Your task to perform on an android device: What's a good restaurant in Dallas? Image 0: 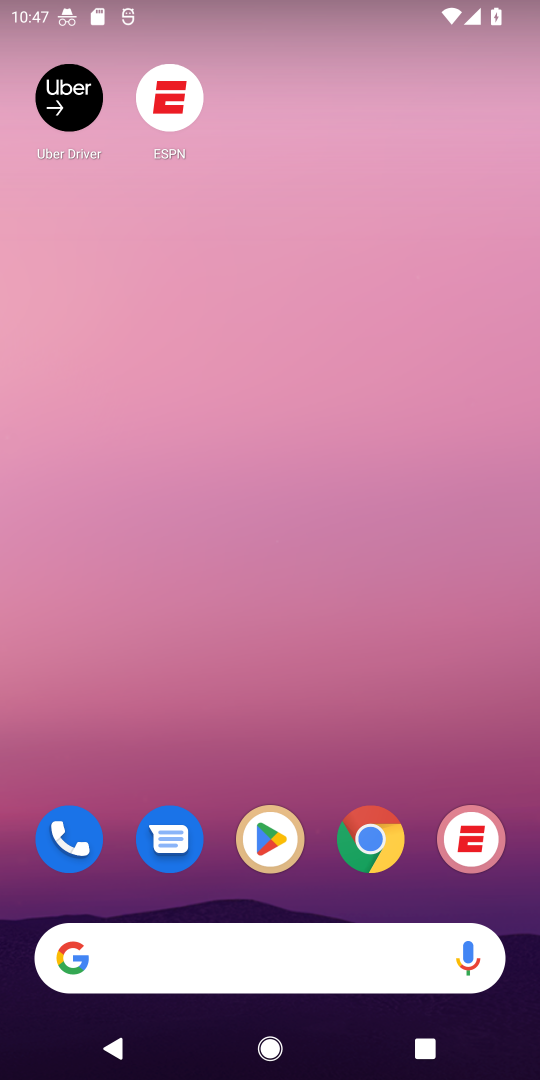
Step 0: drag from (306, 902) to (307, 81)
Your task to perform on an android device: What's a good restaurant in Dallas? Image 1: 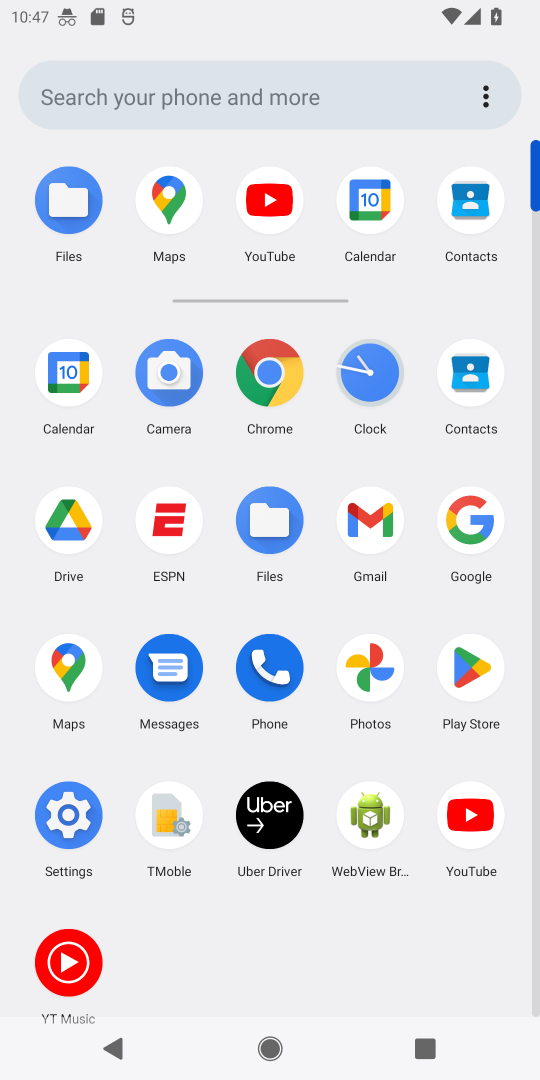
Step 1: click (263, 382)
Your task to perform on an android device: What's a good restaurant in Dallas? Image 2: 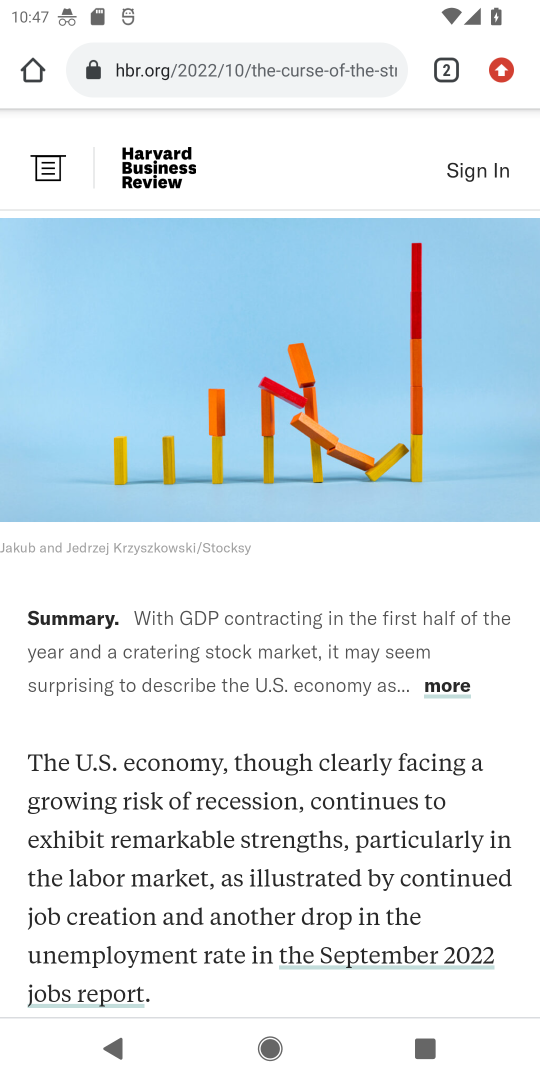
Step 2: click (293, 63)
Your task to perform on an android device: What's a good restaurant in Dallas? Image 3: 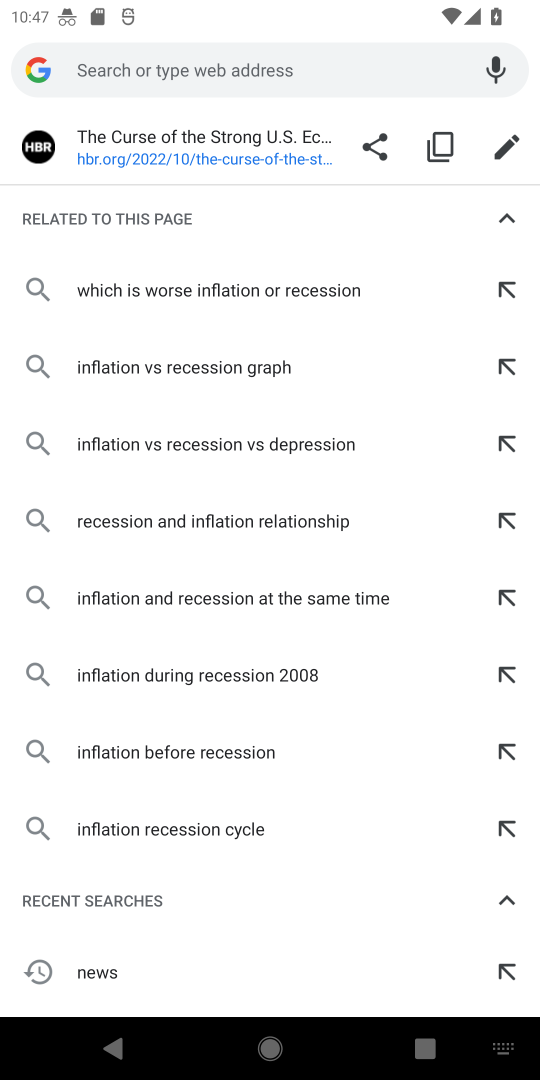
Step 3: type "good restaurnat in Dallas?"
Your task to perform on an android device: What's a good restaurant in Dallas? Image 4: 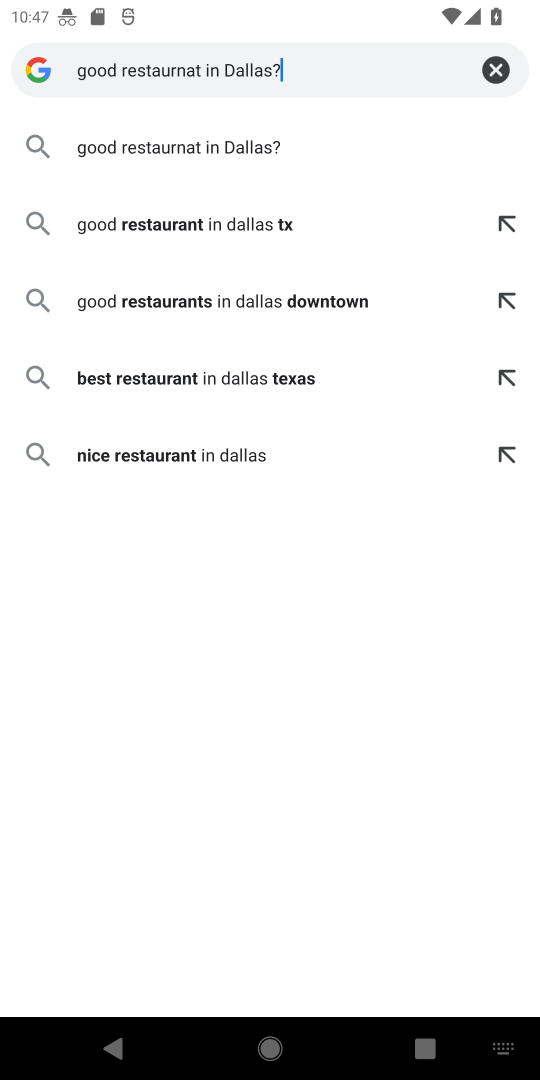
Step 4: press enter
Your task to perform on an android device: What's a good restaurant in Dallas? Image 5: 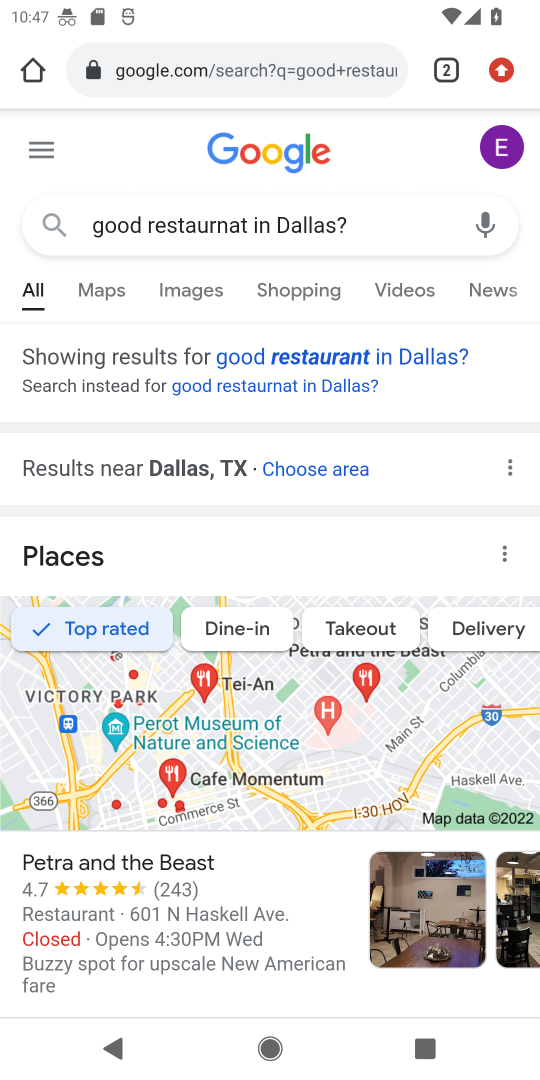
Step 5: task complete